Your task to perform on an android device: When is my next meeting? Image 0: 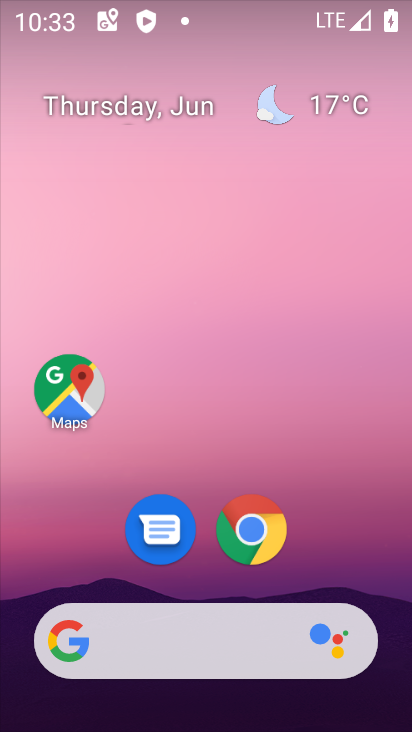
Step 0: drag from (306, 587) to (297, 48)
Your task to perform on an android device: When is my next meeting? Image 1: 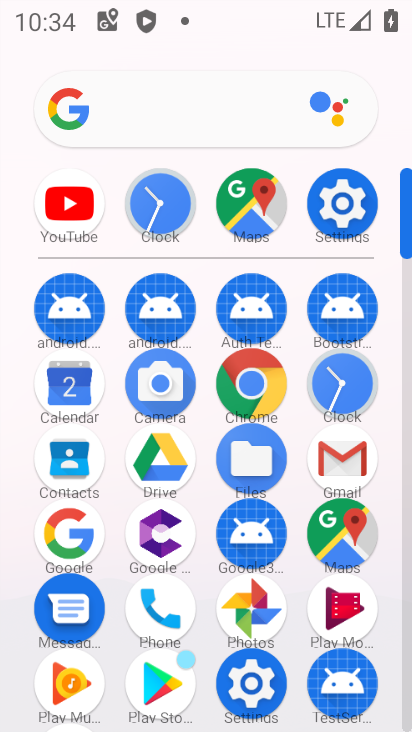
Step 1: click (61, 378)
Your task to perform on an android device: When is my next meeting? Image 2: 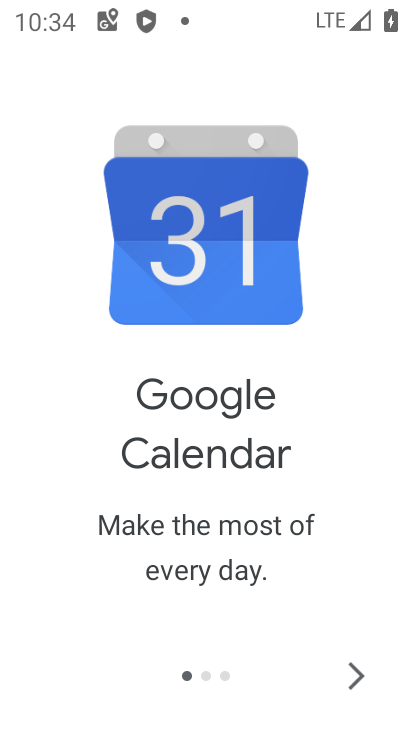
Step 2: click (350, 684)
Your task to perform on an android device: When is my next meeting? Image 3: 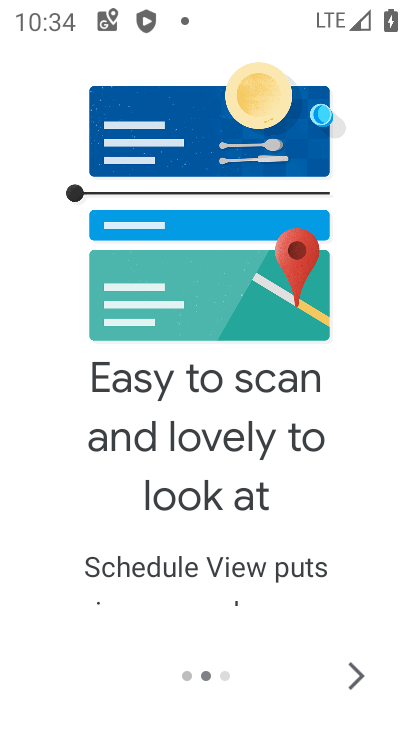
Step 3: click (349, 684)
Your task to perform on an android device: When is my next meeting? Image 4: 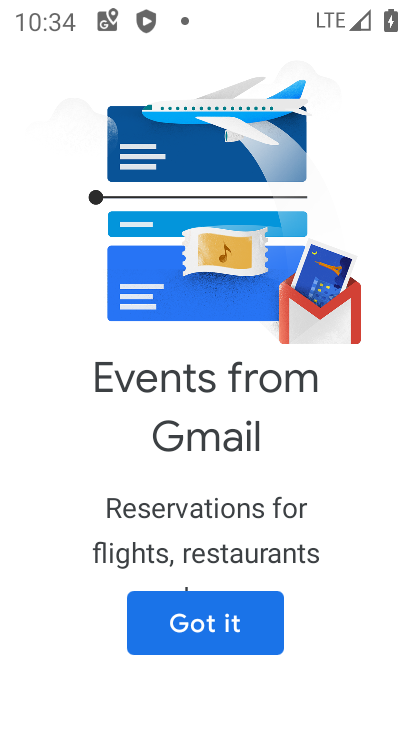
Step 4: click (189, 632)
Your task to perform on an android device: When is my next meeting? Image 5: 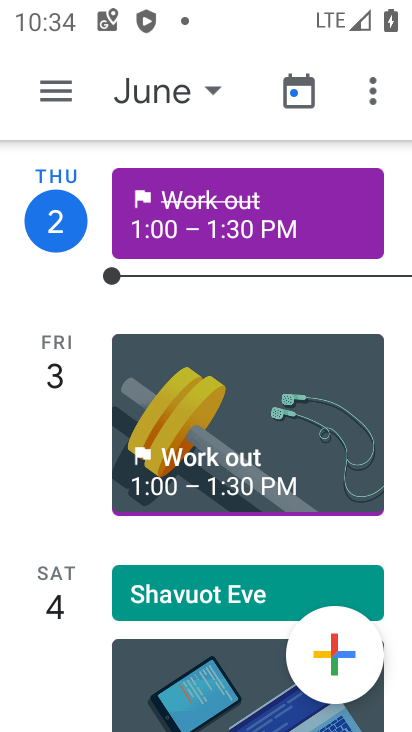
Step 5: task complete